Your task to perform on an android device: What's the weather going to be this weekend? Image 0: 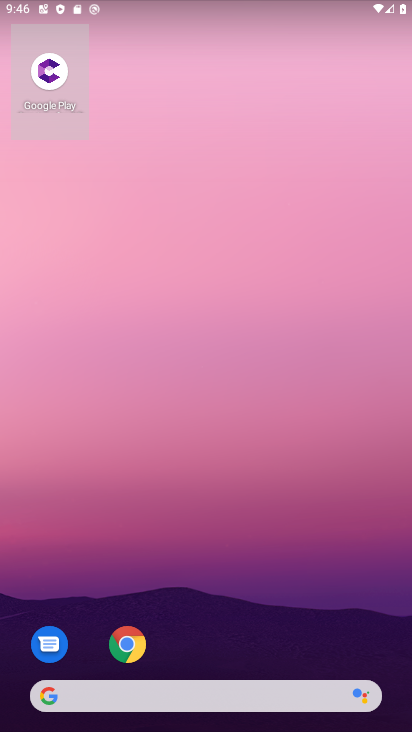
Step 0: click (152, 701)
Your task to perform on an android device: What's the weather going to be this weekend? Image 1: 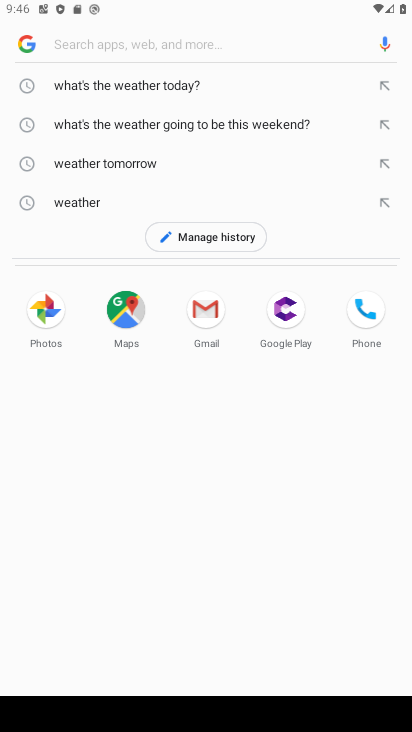
Step 1: type "What's the weather going to be this weekend?"
Your task to perform on an android device: What's the weather going to be this weekend? Image 2: 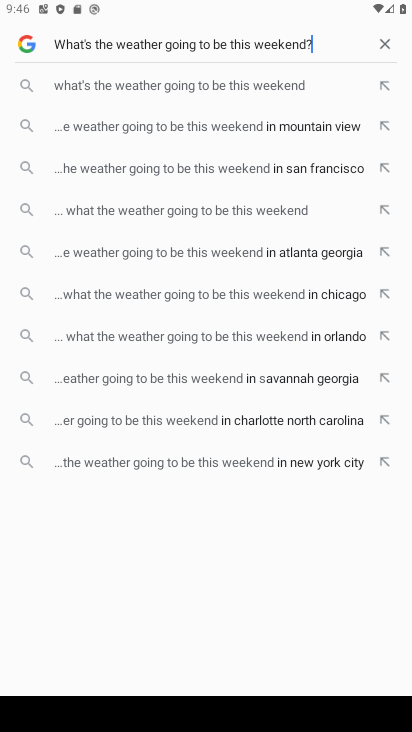
Step 2: click (316, 78)
Your task to perform on an android device: What's the weather going to be this weekend? Image 3: 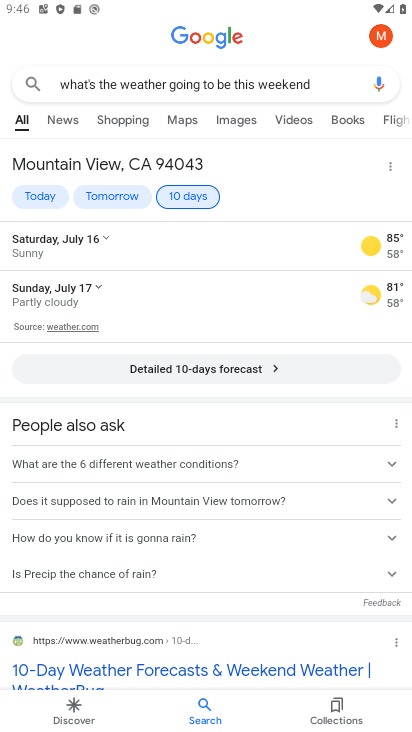
Step 3: task complete